Your task to perform on an android device: search for starred emails in the gmail app Image 0: 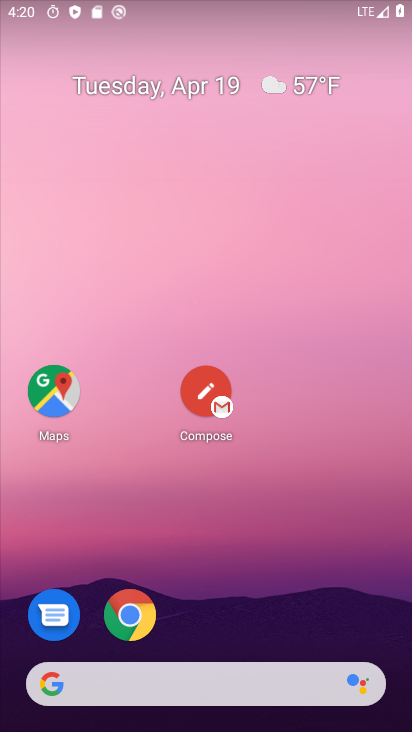
Step 0: drag from (337, 624) to (349, 106)
Your task to perform on an android device: search for starred emails in the gmail app Image 1: 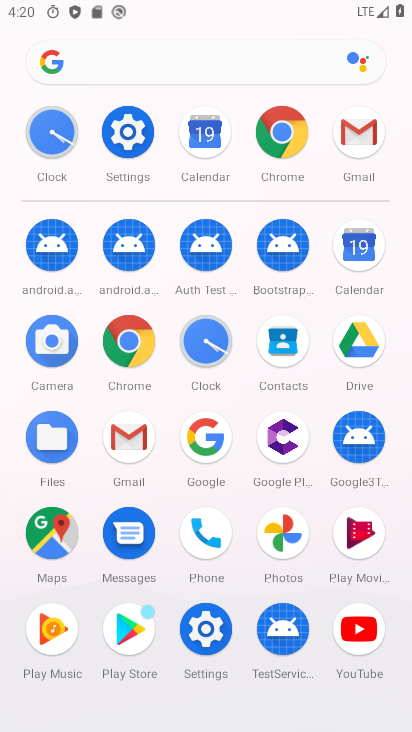
Step 1: click (115, 445)
Your task to perform on an android device: search for starred emails in the gmail app Image 2: 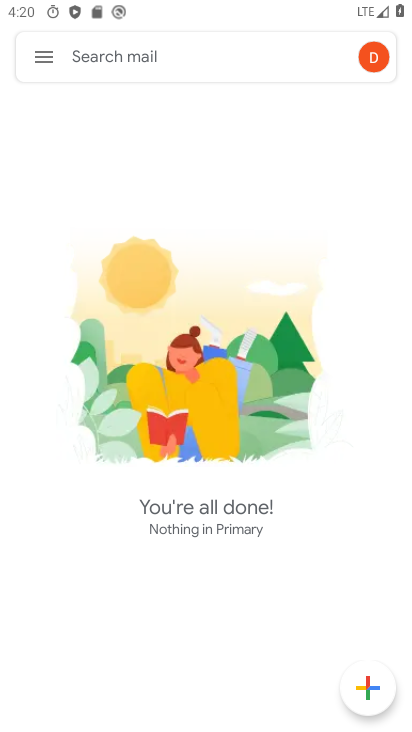
Step 2: click (40, 56)
Your task to perform on an android device: search for starred emails in the gmail app Image 3: 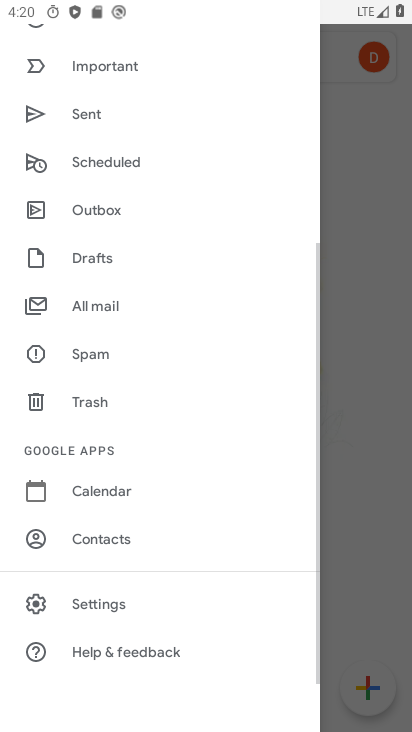
Step 3: drag from (142, 148) to (230, 600)
Your task to perform on an android device: search for starred emails in the gmail app Image 4: 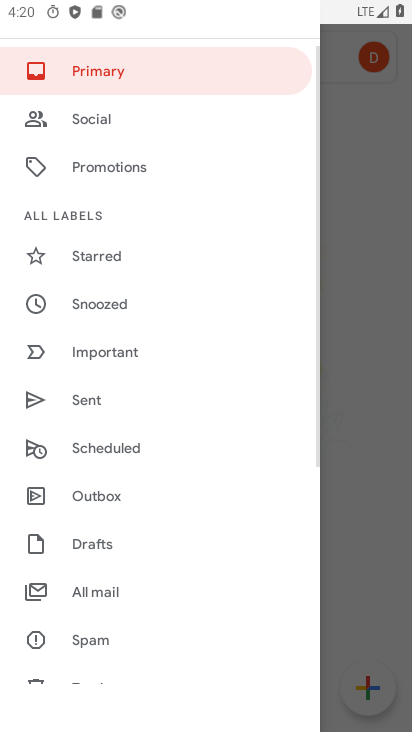
Step 4: click (106, 275)
Your task to perform on an android device: search for starred emails in the gmail app Image 5: 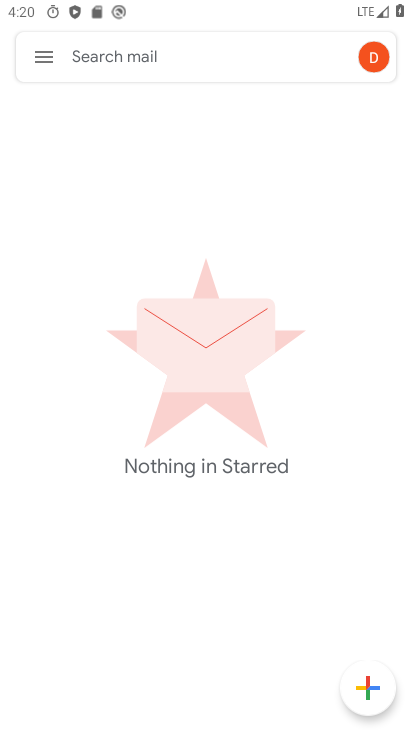
Step 5: task complete